Your task to perform on an android device: Turn on the flashlight Image 0: 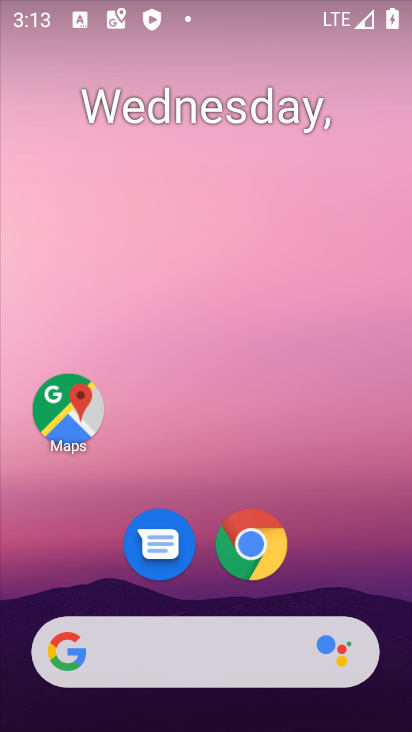
Step 0: drag from (233, 14) to (215, 464)
Your task to perform on an android device: Turn on the flashlight Image 1: 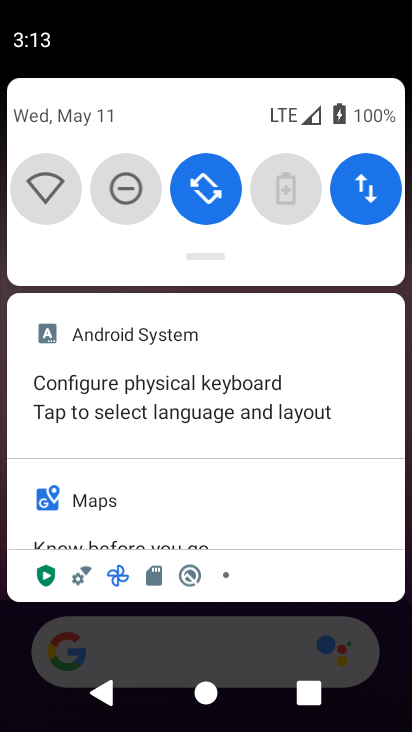
Step 1: drag from (213, 258) to (196, 591)
Your task to perform on an android device: Turn on the flashlight Image 2: 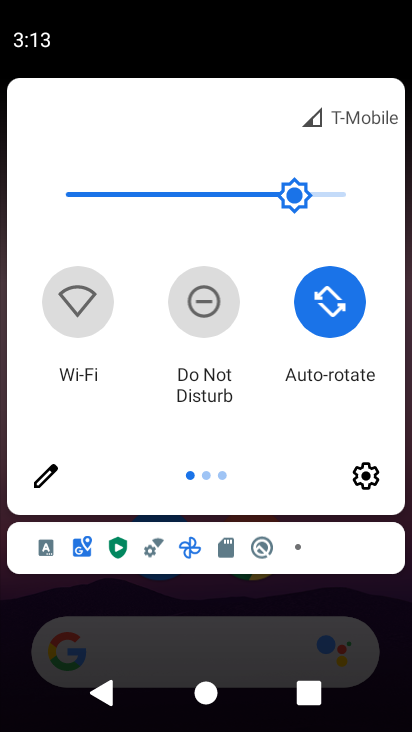
Step 2: click (45, 476)
Your task to perform on an android device: Turn on the flashlight Image 3: 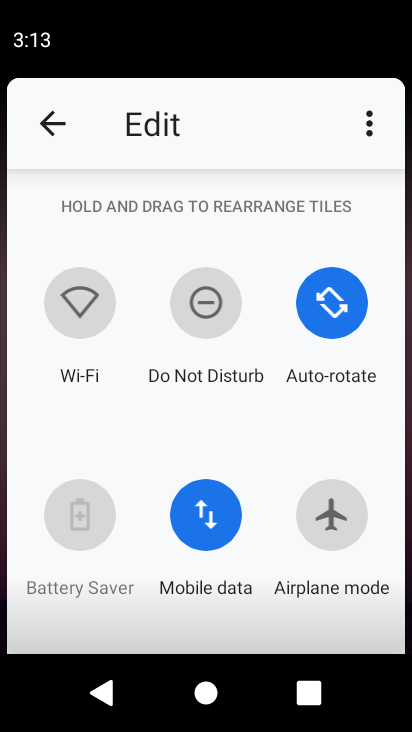
Step 3: task complete